Your task to perform on an android device: turn on improve location accuracy Image 0: 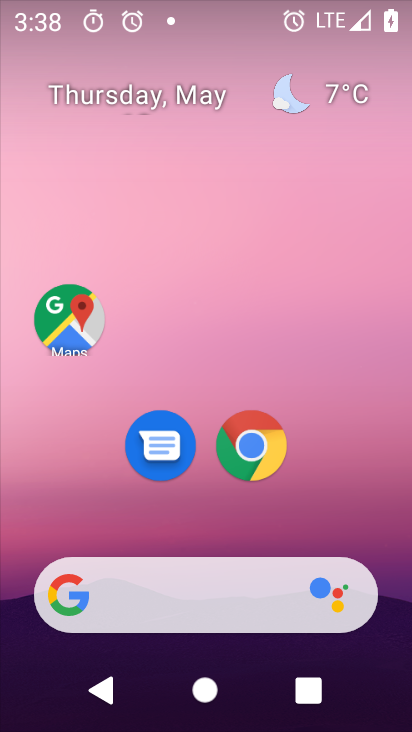
Step 0: press home button
Your task to perform on an android device: turn on improve location accuracy Image 1: 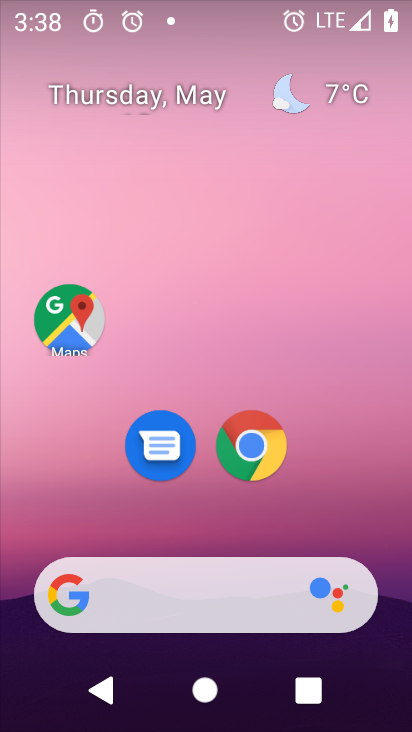
Step 1: drag from (390, 551) to (411, 97)
Your task to perform on an android device: turn on improve location accuracy Image 2: 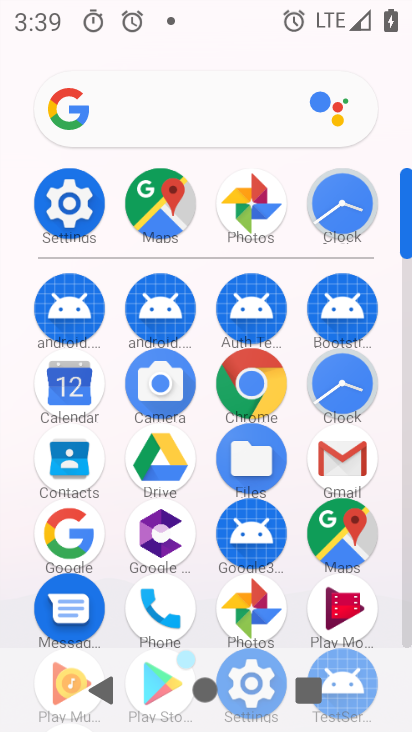
Step 2: click (73, 212)
Your task to perform on an android device: turn on improve location accuracy Image 3: 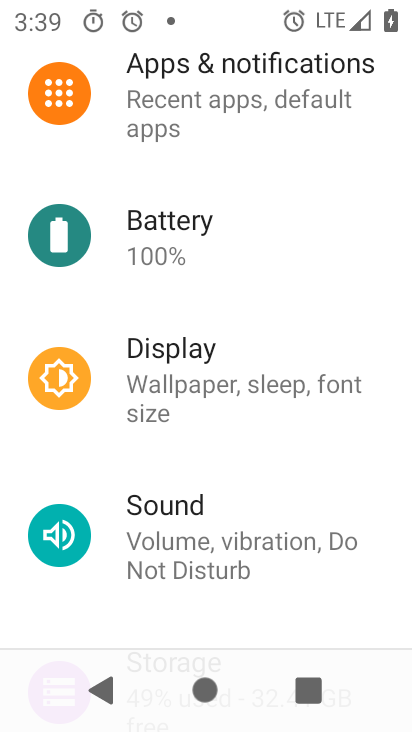
Step 3: drag from (294, 545) to (291, 124)
Your task to perform on an android device: turn on improve location accuracy Image 4: 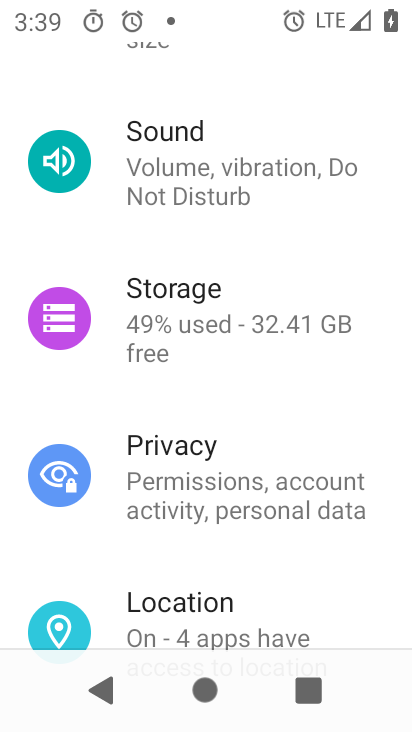
Step 4: click (183, 606)
Your task to perform on an android device: turn on improve location accuracy Image 5: 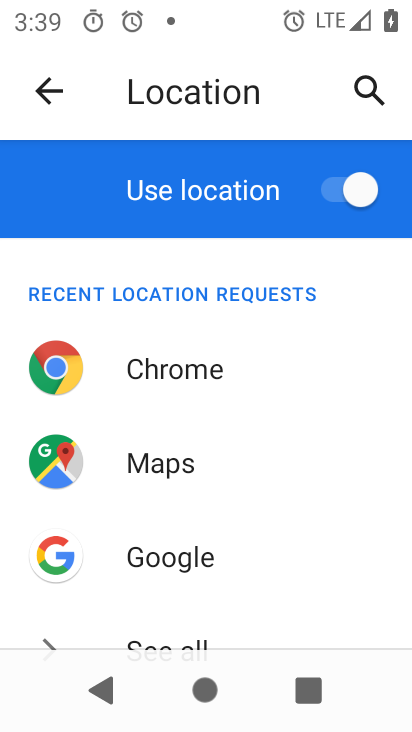
Step 5: drag from (232, 556) to (230, 55)
Your task to perform on an android device: turn on improve location accuracy Image 6: 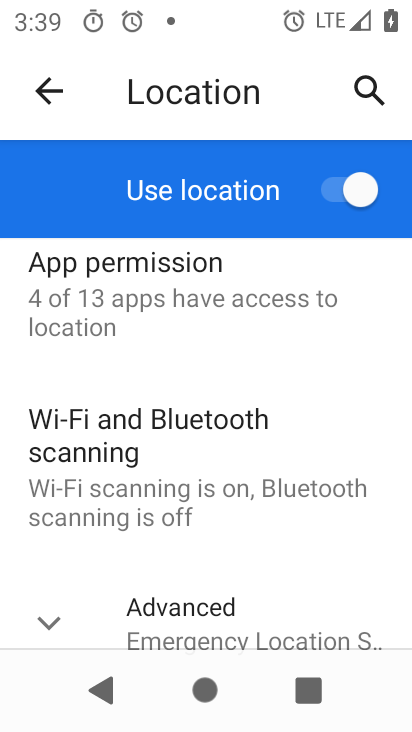
Step 6: click (47, 629)
Your task to perform on an android device: turn on improve location accuracy Image 7: 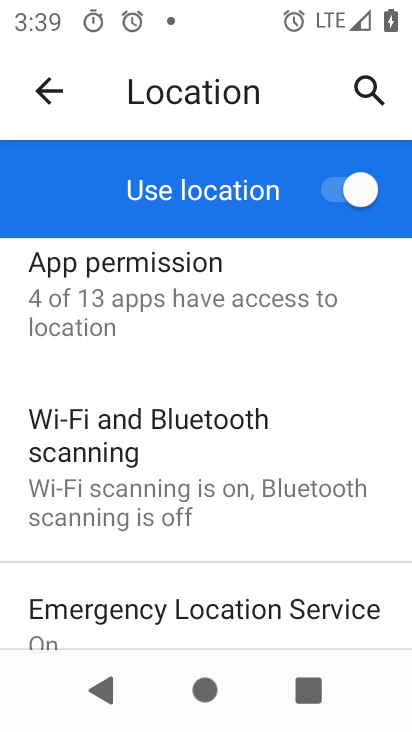
Step 7: drag from (203, 535) to (202, 195)
Your task to perform on an android device: turn on improve location accuracy Image 8: 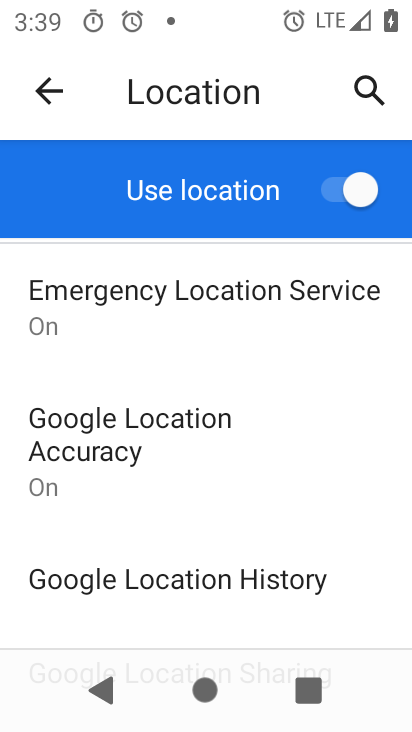
Step 8: click (69, 458)
Your task to perform on an android device: turn on improve location accuracy Image 9: 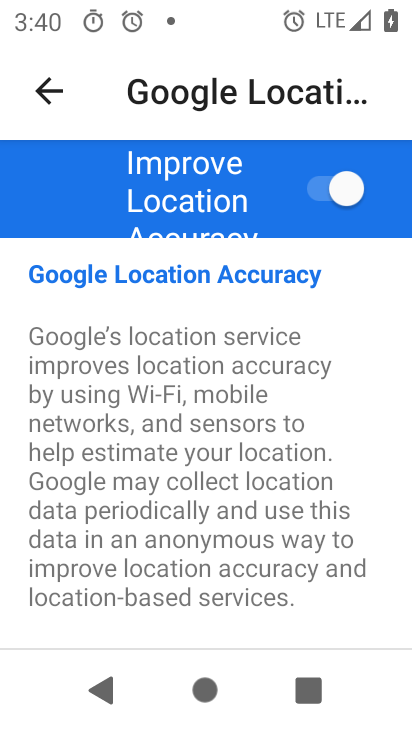
Step 9: task complete